Your task to perform on an android device: Open wifi settings Image 0: 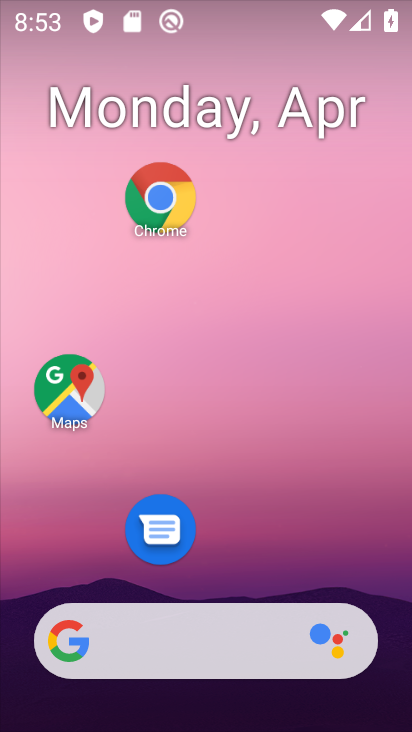
Step 0: drag from (151, 11) to (175, 445)
Your task to perform on an android device: Open wifi settings Image 1: 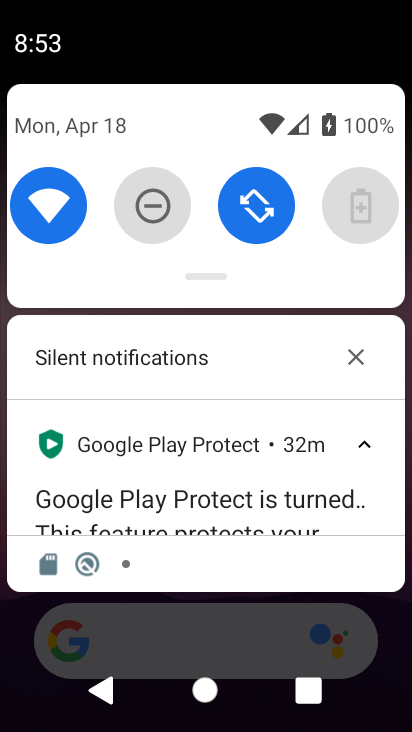
Step 1: click (61, 202)
Your task to perform on an android device: Open wifi settings Image 2: 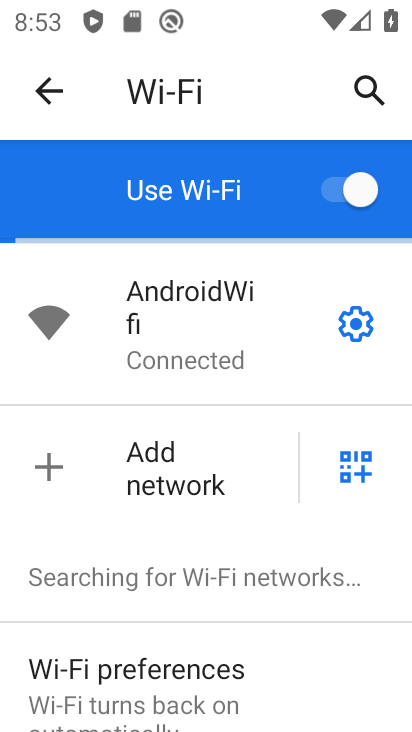
Step 2: task complete